Your task to perform on an android device: turn notification dots off Image 0: 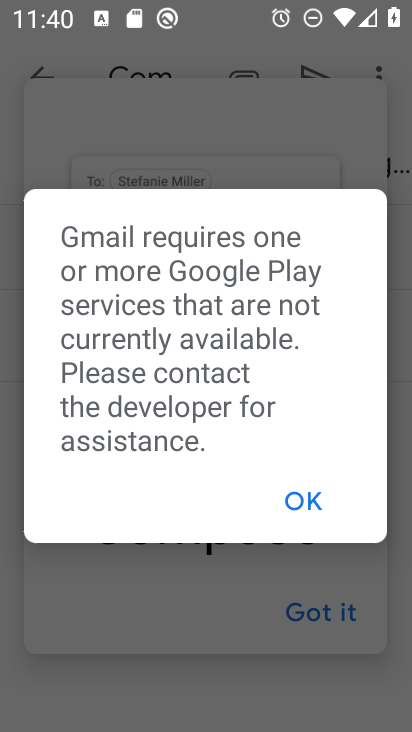
Step 0: press home button
Your task to perform on an android device: turn notification dots off Image 1: 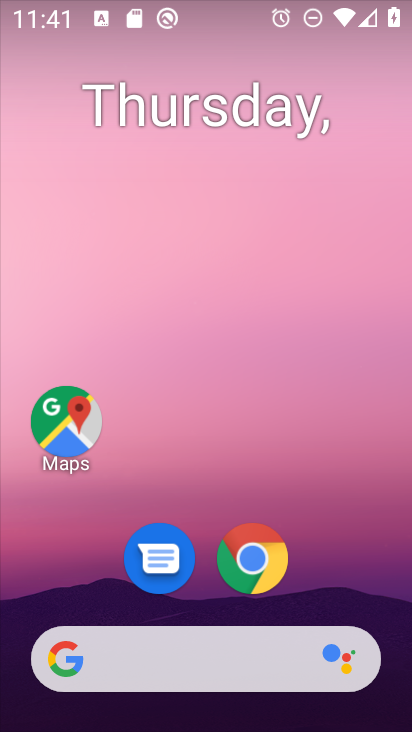
Step 1: drag from (357, 596) to (329, 108)
Your task to perform on an android device: turn notification dots off Image 2: 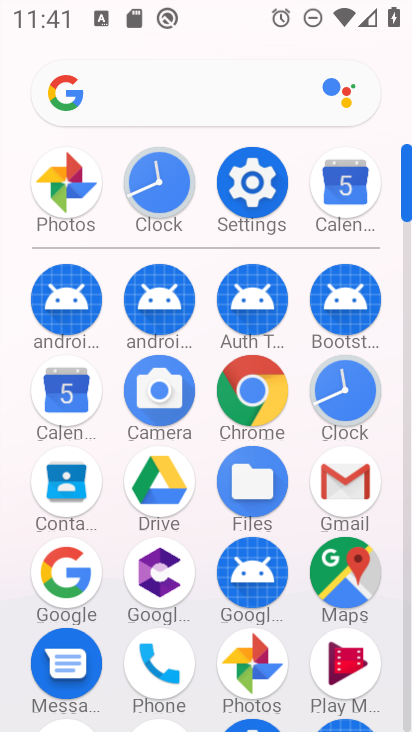
Step 2: click (407, 705)
Your task to perform on an android device: turn notification dots off Image 3: 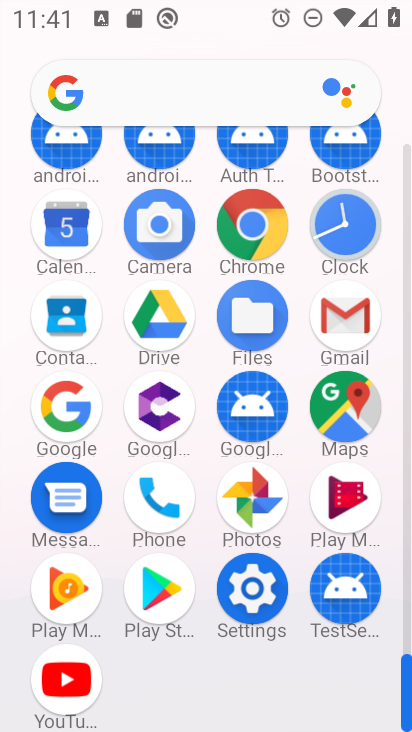
Step 3: click (251, 582)
Your task to perform on an android device: turn notification dots off Image 4: 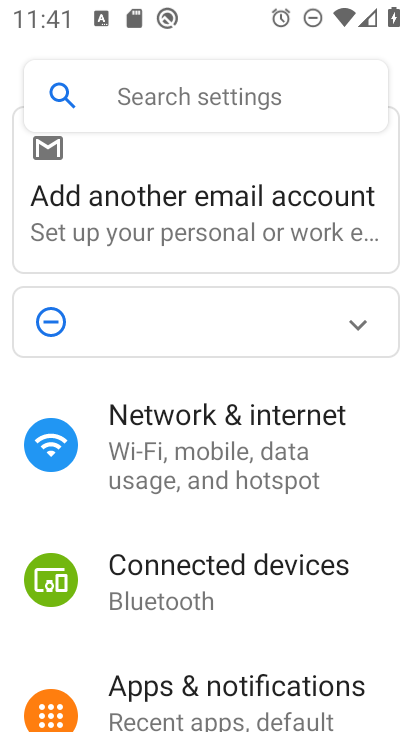
Step 4: drag from (357, 597) to (332, 206)
Your task to perform on an android device: turn notification dots off Image 5: 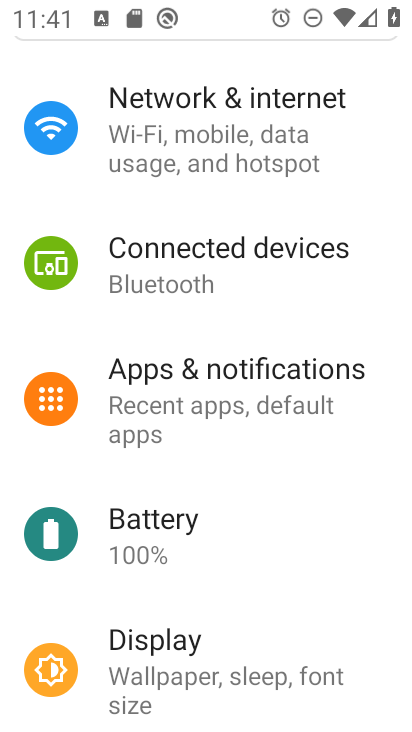
Step 5: click (140, 378)
Your task to perform on an android device: turn notification dots off Image 6: 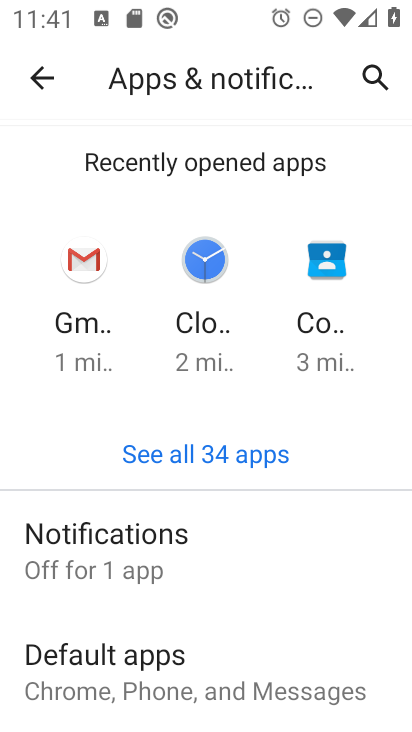
Step 6: click (110, 541)
Your task to perform on an android device: turn notification dots off Image 7: 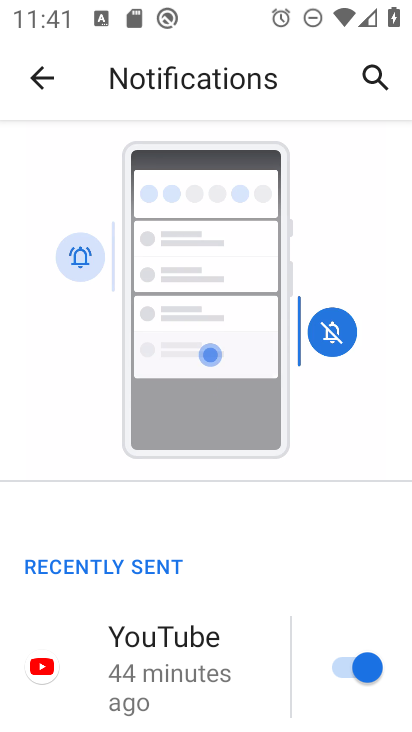
Step 7: drag from (288, 665) to (259, 142)
Your task to perform on an android device: turn notification dots off Image 8: 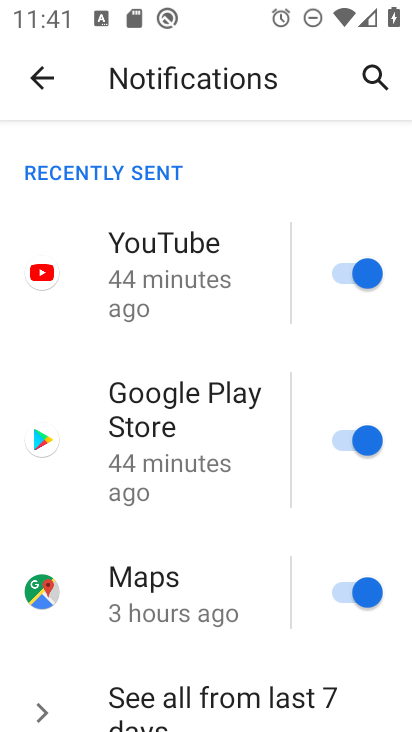
Step 8: drag from (287, 664) to (279, 185)
Your task to perform on an android device: turn notification dots off Image 9: 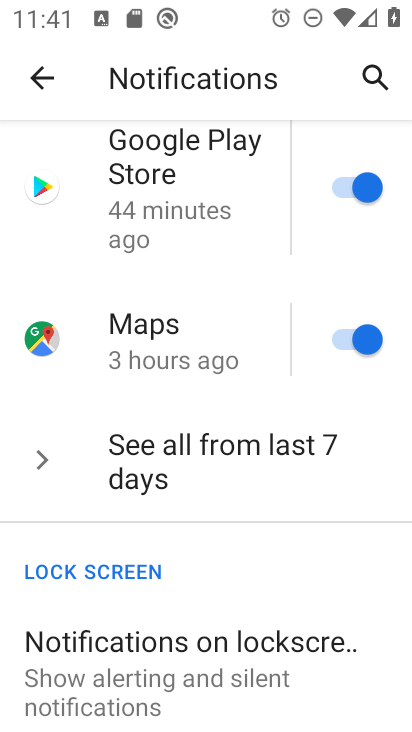
Step 9: drag from (272, 670) to (274, 122)
Your task to perform on an android device: turn notification dots off Image 10: 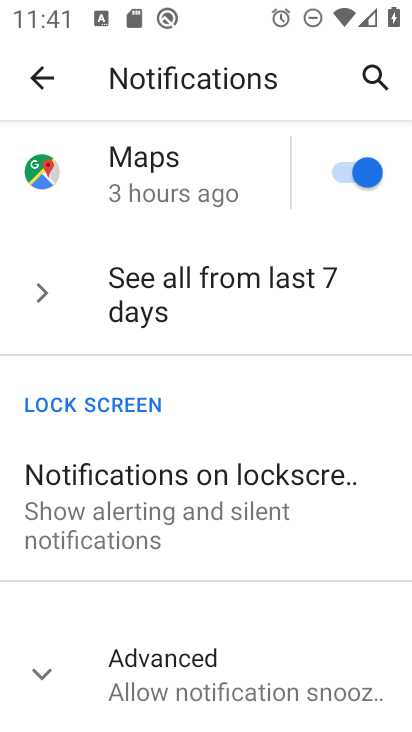
Step 10: click (48, 673)
Your task to perform on an android device: turn notification dots off Image 11: 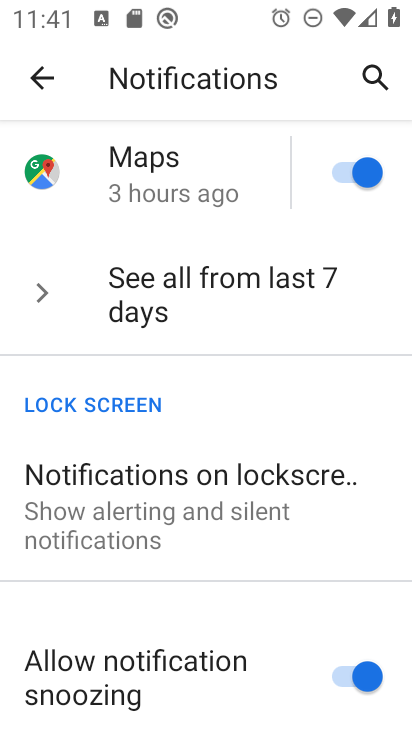
Step 11: drag from (273, 677) to (281, 200)
Your task to perform on an android device: turn notification dots off Image 12: 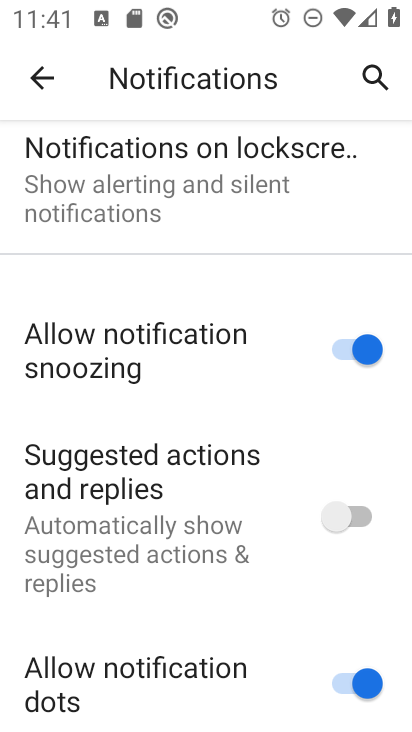
Step 12: drag from (262, 656) to (281, 223)
Your task to perform on an android device: turn notification dots off Image 13: 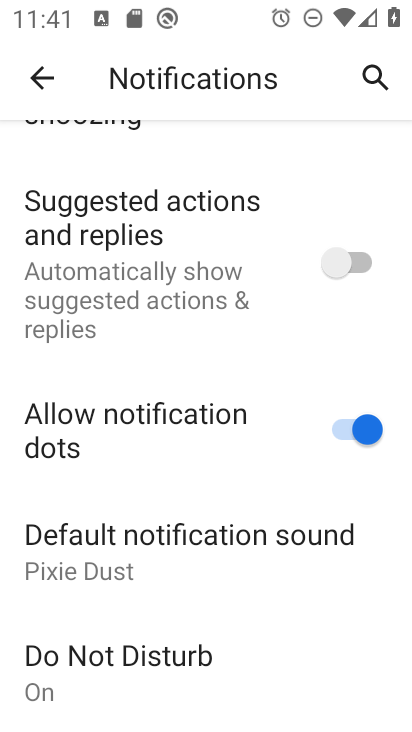
Step 13: click (337, 426)
Your task to perform on an android device: turn notification dots off Image 14: 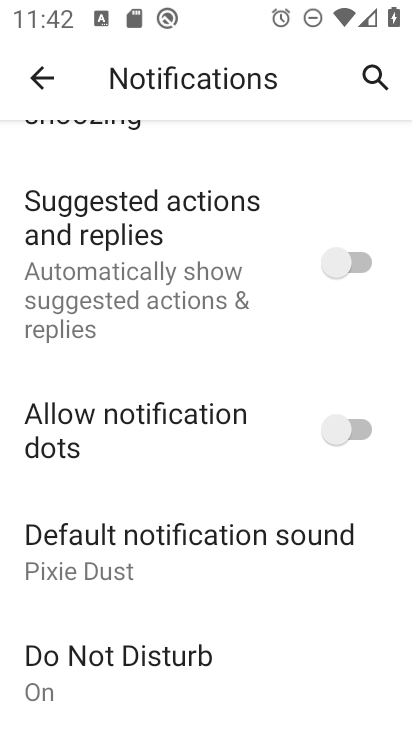
Step 14: task complete